Your task to perform on an android device: Open calendar and show me the first week of next month Image 0: 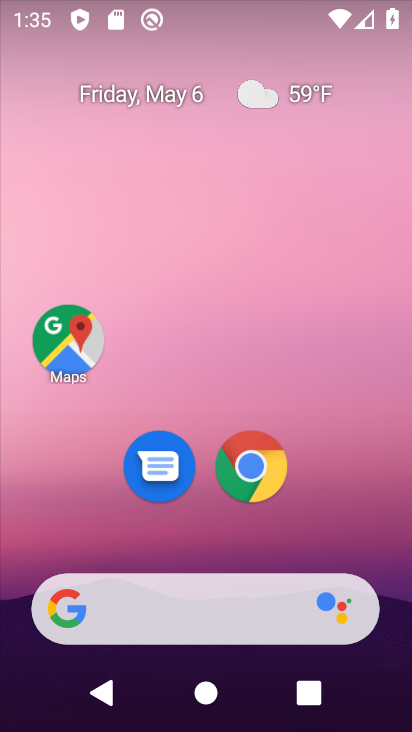
Step 0: drag from (207, 539) to (205, 49)
Your task to perform on an android device: Open calendar and show me the first week of next month Image 1: 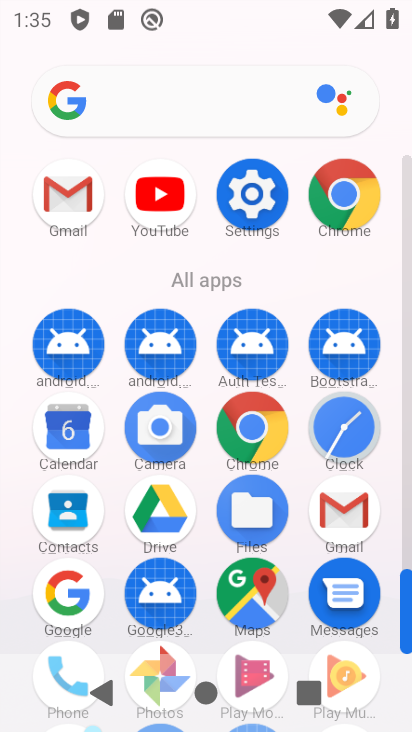
Step 1: click (67, 425)
Your task to perform on an android device: Open calendar and show me the first week of next month Image 2: 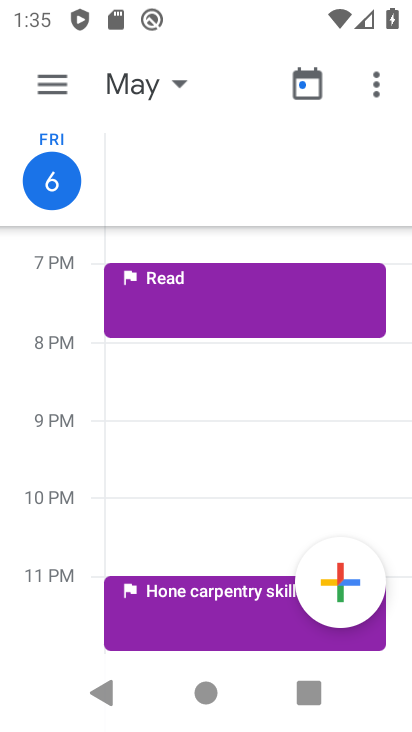
Step 2: drag from (64, 540) to (74, 231)
Your task to perform on an android device: Open calendar and show me the first week of next month Image 3: 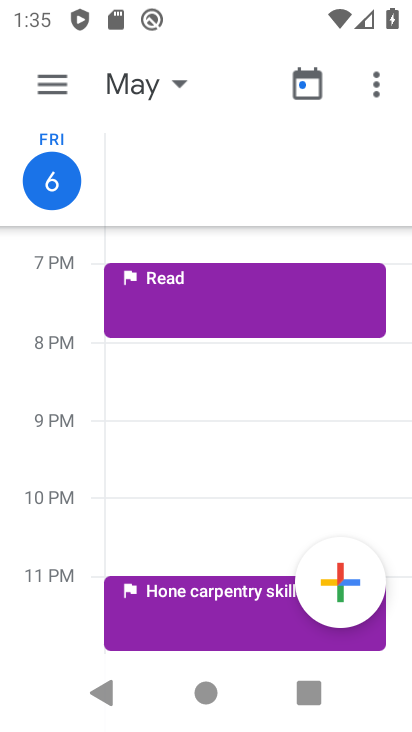
Step 3: click (49, 82)
Your task to perform on an android device: Open calendar and show me the first week of next month Image 4: 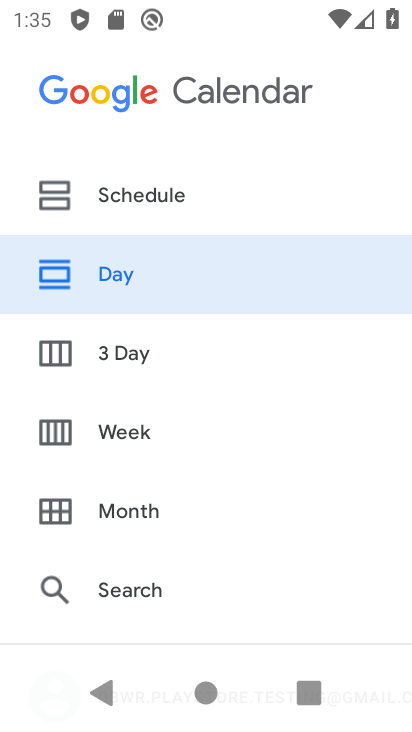
Step 4: click (105, 435)
Your task to perform on an android device: Open calendar and show me the first week of next month Image 5: 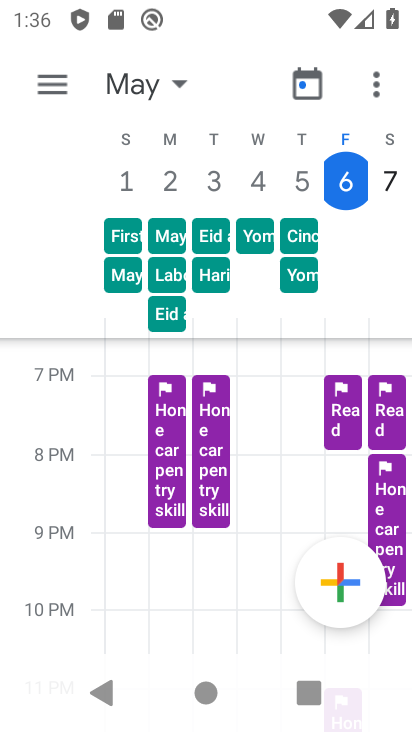
Step 5: drag from (371, 176) to (48, 176)
Your task to perform on an android device: Open calendar and show me the first week of next month Image 6: 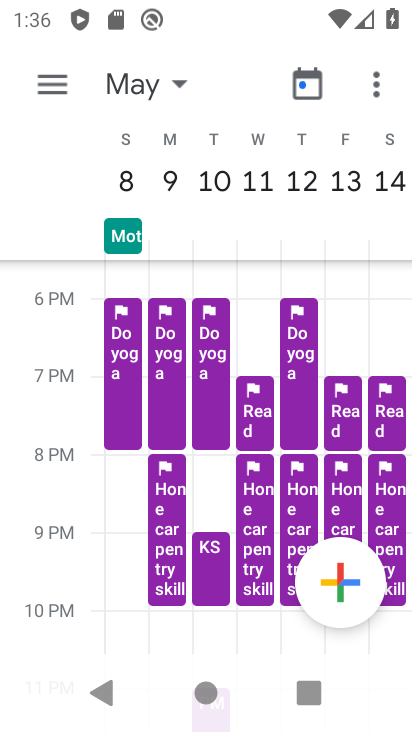
Step 6: click (123, 178)
Your task to perform on an android device: Open calendar and show me the first week of next month Image 7: 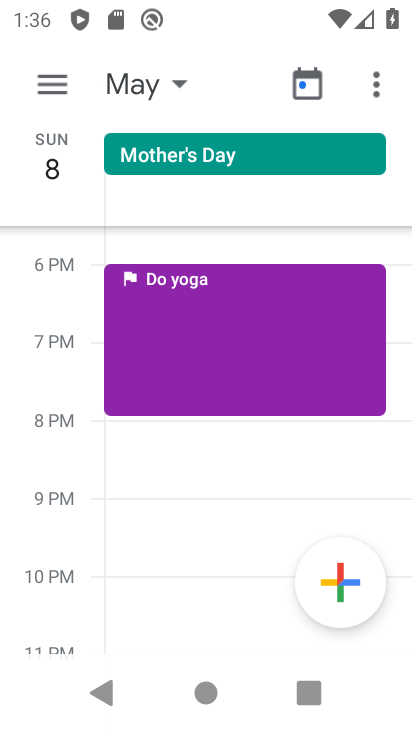
Step 7: click (71, 192)
Your task to perform on an android device: Open calendar and show me the first week of next month Image 8: 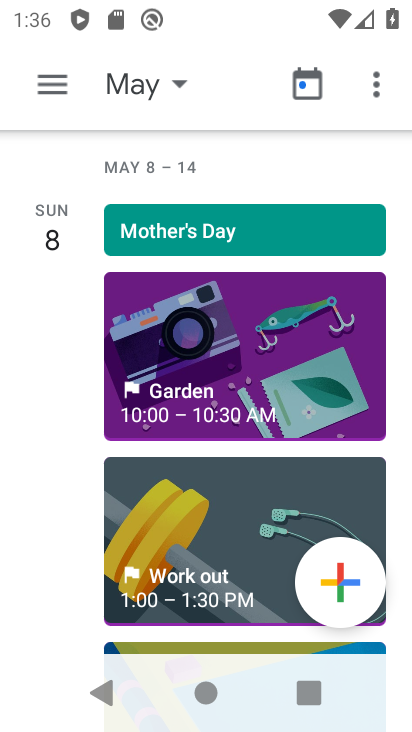
Step 8: task complete